Your task to perform on an android device: What's the weather going to be tomorrow? Image 0: 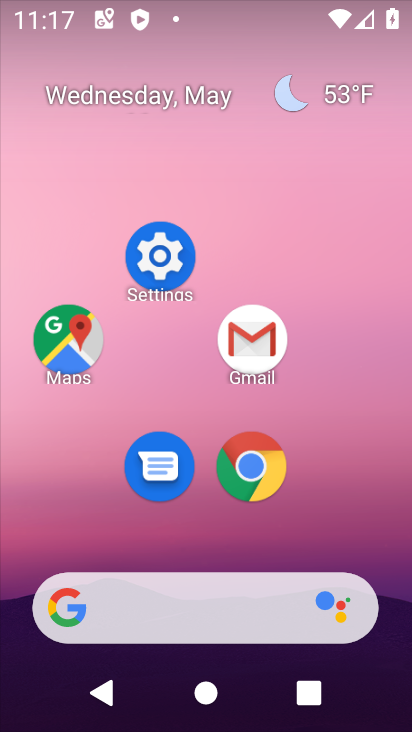
Step 0: drag from (171, 530) to (255, 12)
Your task to perform on an android device: What's the weather going to be tomorrow? Image 1: 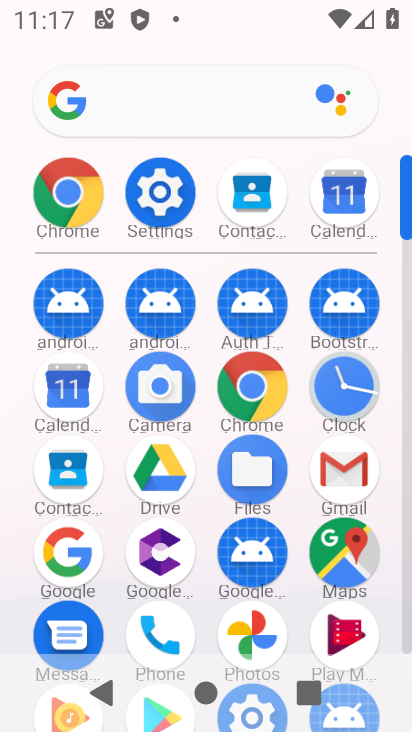
Step 1: click (236, 98)
Your task to perform on an android device: What's the weather going to be tomorrow? Image 2: 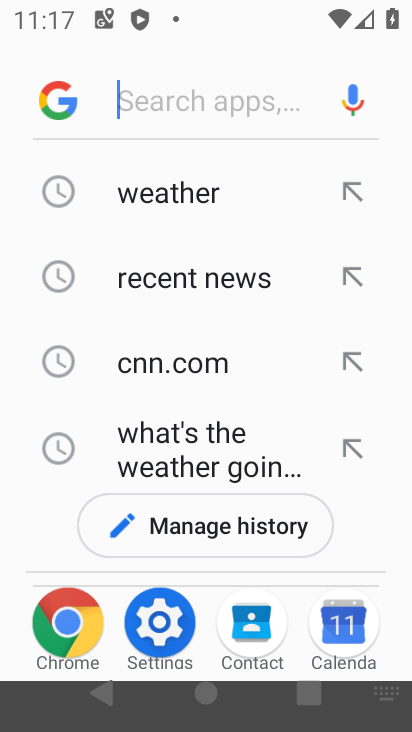
Step 2: click (166, 99)
Your task to perform on an android device: What's the weather going to be tomorrow? Image 3: 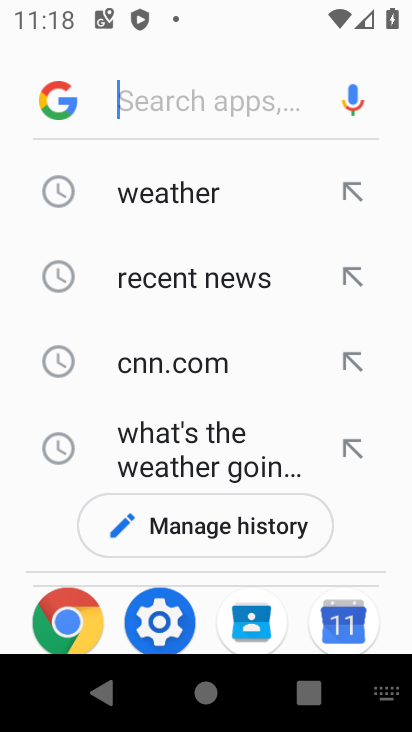
Step 3: type "weather tomorrow"
Your task to perform on an android device: What's the weather going to be tomorrow? Image 4: 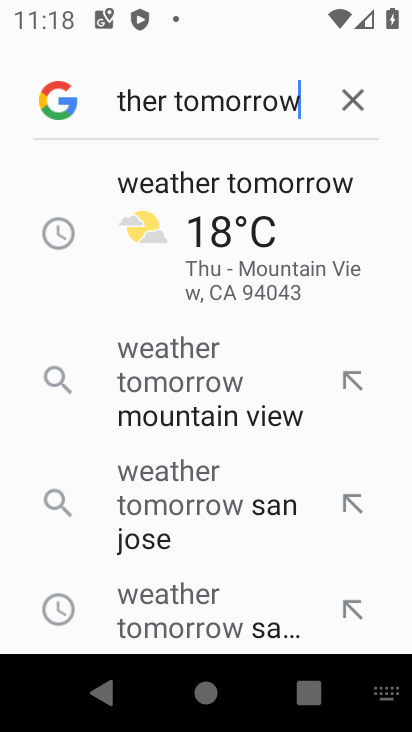
Step 4: click (241, 186)
Your task to perform on an android device: What's the weather going to be tomorrow? Image 5: 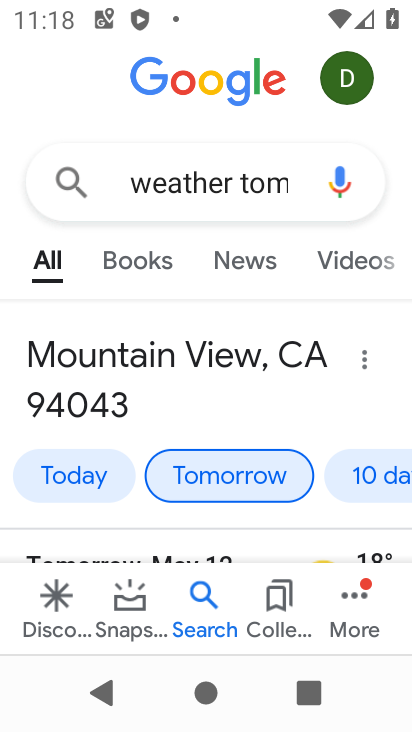
Step 5: task complete